Your task to perform on an android device: Open the web browser Image 0: 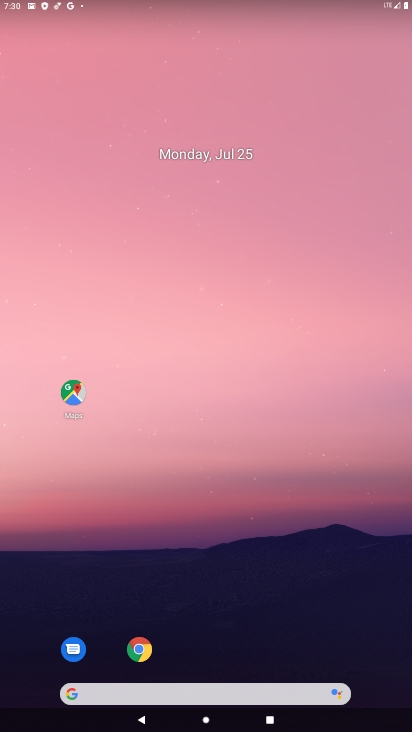
Step 0: click (228, 692)
Your task to perform on an android device: Open the web browser Image 1: 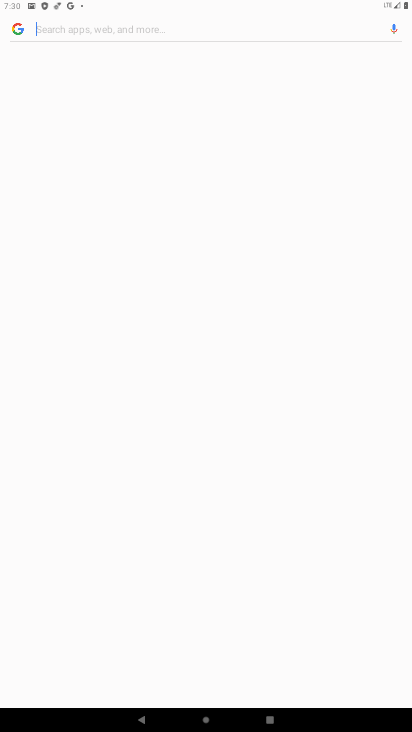
Step 1: task complete